Your task to perform on an android device: toggle sleep mode Image 0: 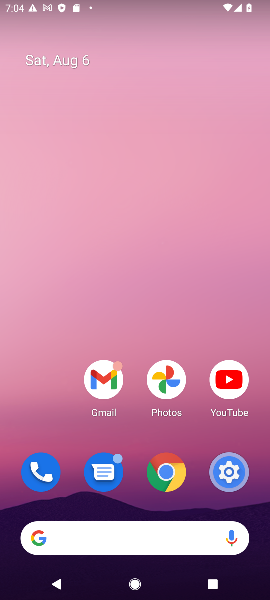
Step 0: click (227, 472)
Your task to perform on an android device: toggle sleep mode Image 1: 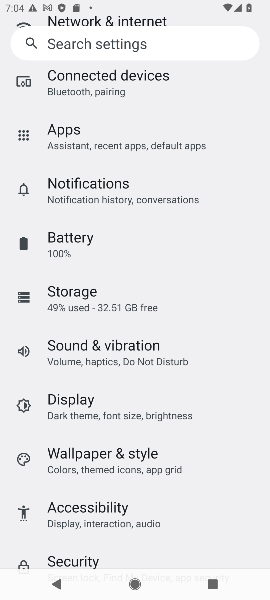
Step 1: drag from (224, 180) to (224, 261)
Your task to perform on an android device: toggle sleep mode Image 2: 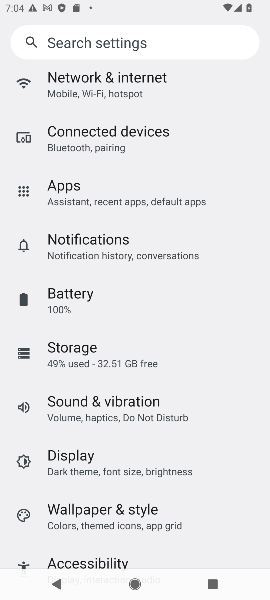
Step 2: click (55, 462)
Your task to perform on an android device: toggle sleep mode Image 3: 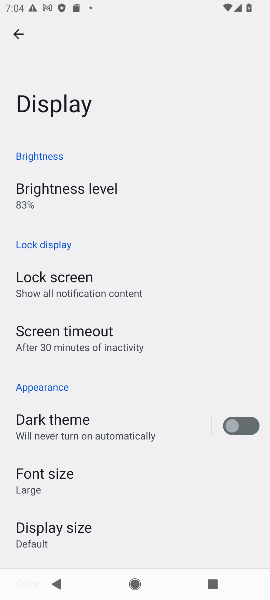
Step 3: task complete